Your task to perform on an android device: Go to Google Image 0: 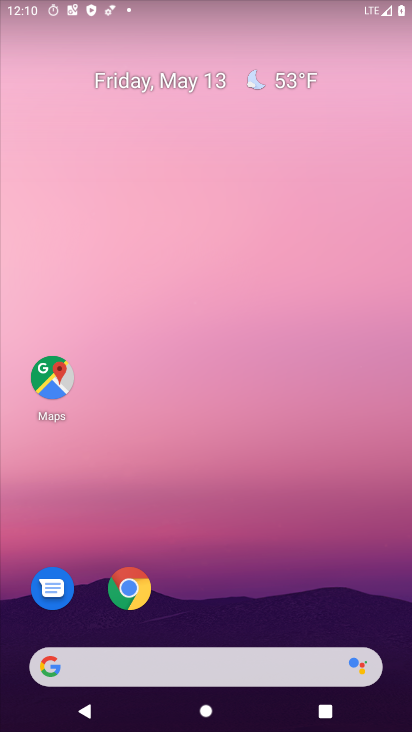
Step 0: drag from (243, 521) to (209, 124)
Your task to perform on an android device: Go to Google Image 1: 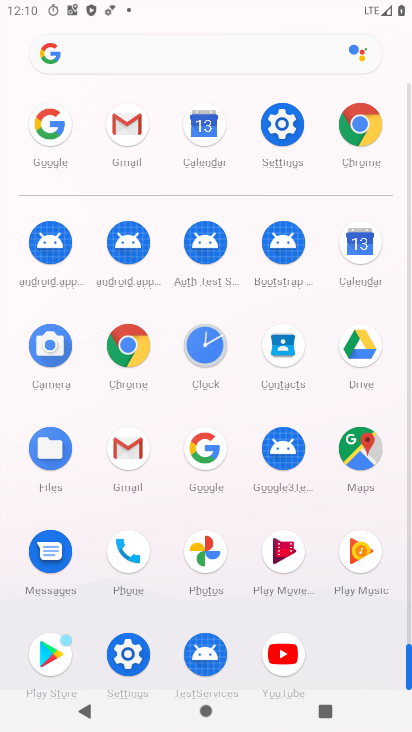
Step 1: click (205, 438)
Your task to perform on an android device: Go to Google Image 2: 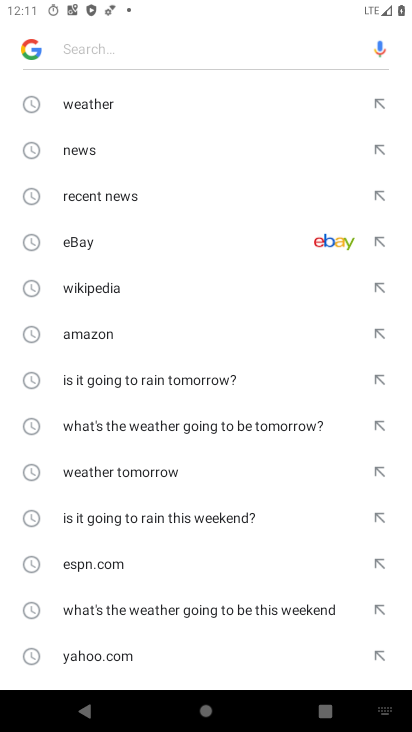
Step 2: task complete